Your task to perform on an android device: Play the last video I watched on Youtube Image 0: 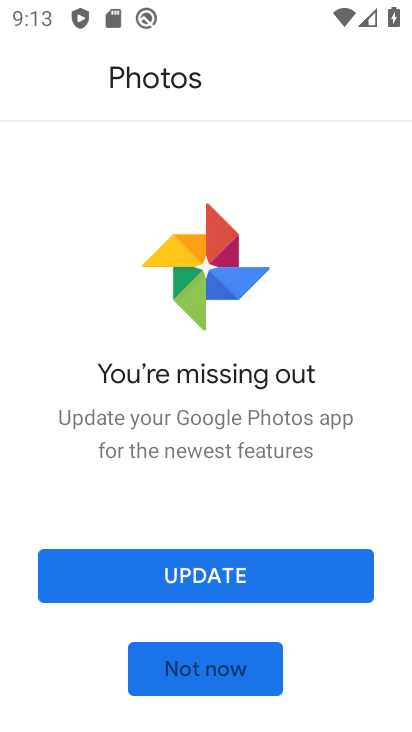
Step 0: press home button
Your task to perform on an android device: Play the last video I watched on Youtube Image 1: 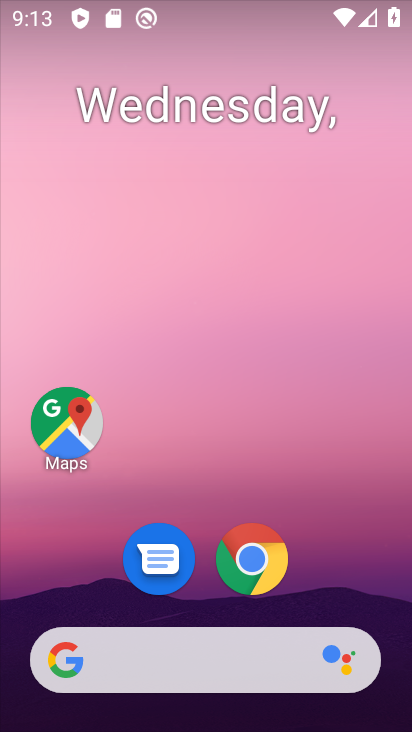
Step 1: drag from (327, 567) to (317, 189)
Your task to perform on an android device: Play the last video I watched on Youtube Image 2: 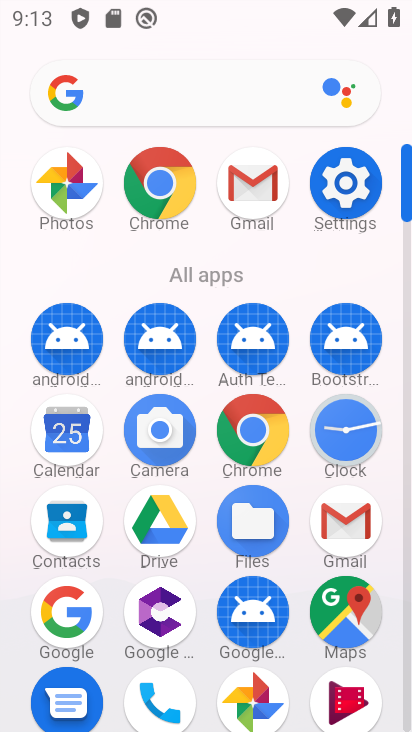
Step 2: drag from (292, 650) to (312, 248)
Your task to perform on an android device: Play the last video I watched on Youtube Image 3: 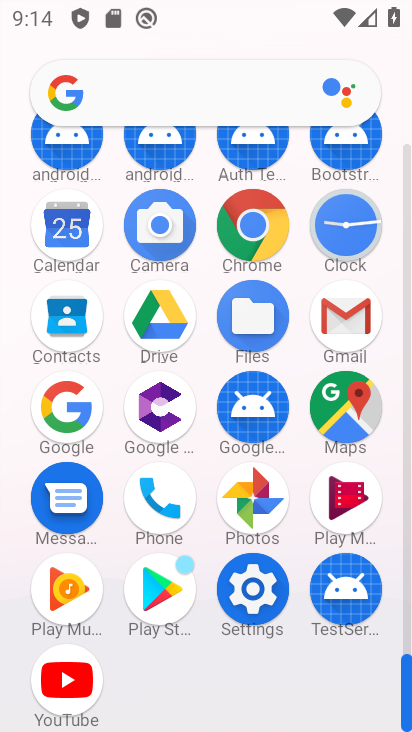
Step 3: click (68, 695)
Your task to perform on an android device: Play the last video I watched on Youtube Image 4: 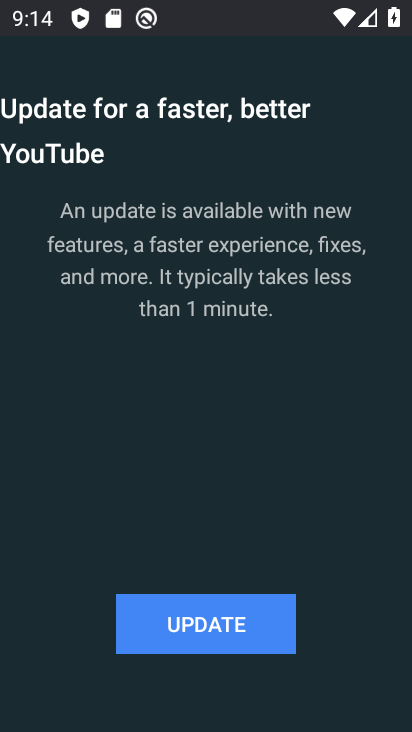
Step 4: click (226, 646)
Your task to perform on an android device: Play the last video I watched on Youtube Image 5: 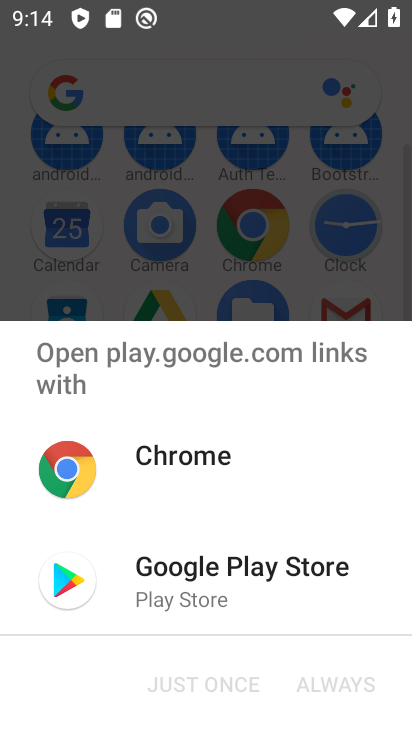
Step 5: click (189, 582)
Your task to perform on an android device: Play the last video I watched on Youtube Image 6: 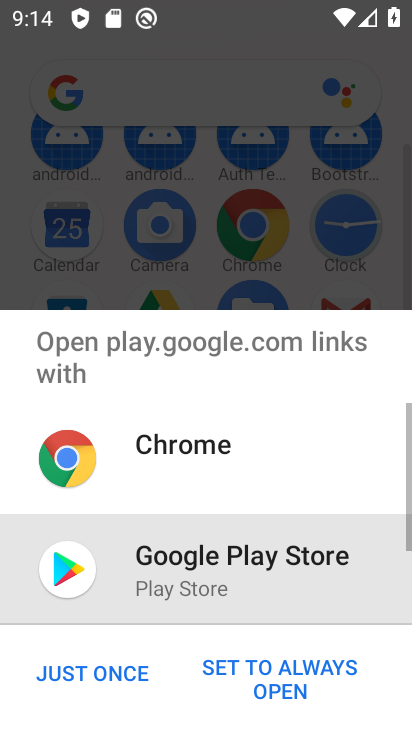
Step 6: click (77, 666)
Your task to perform on an android device: Play the last video I watched on Youtube Image 7: 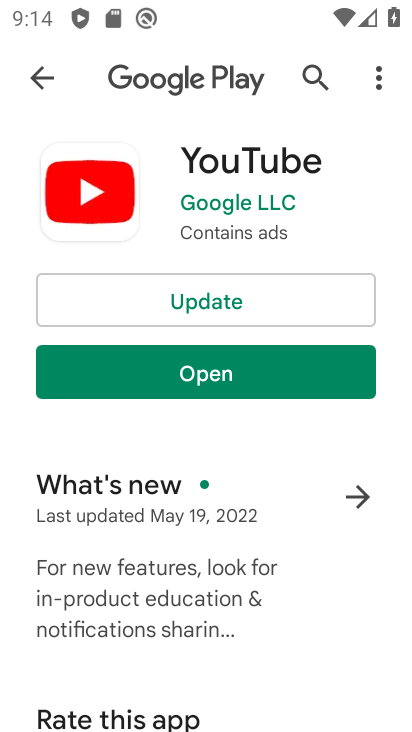
Step 7: click (173, 302)
Your task to perform on an android device: Play the last video I watched on Youtube Image 8: 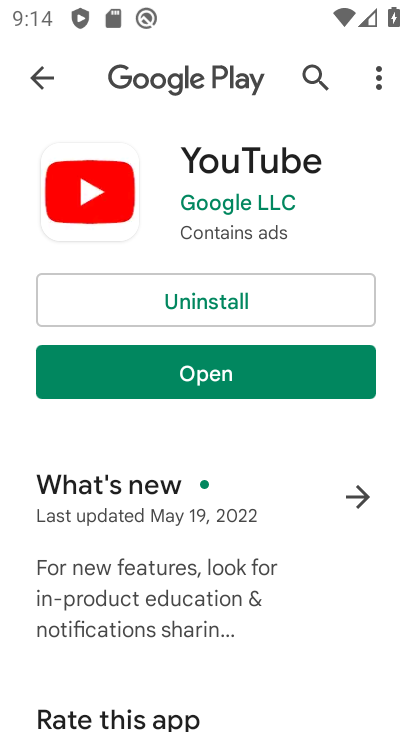
Step 8: click (256, 369)
Your task to perform on an android device: Play the last video I watched on Youtube Image 9: 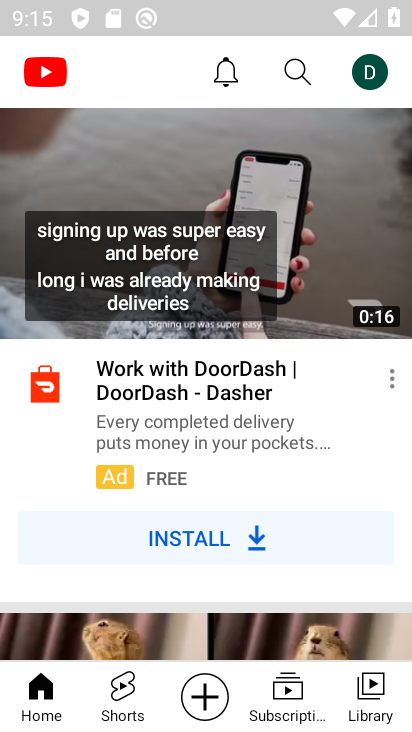
Step 9: click (371, 689)
Your task to perform on an android device: Play the last video I watched on Youtube Image 10: 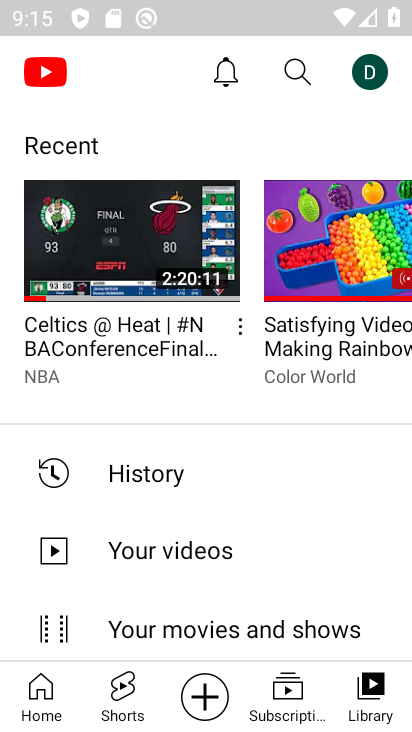
Step 10: click (140, 233)
Your task to perform on an android device: Play the last video I watched on Youtube Image 11: 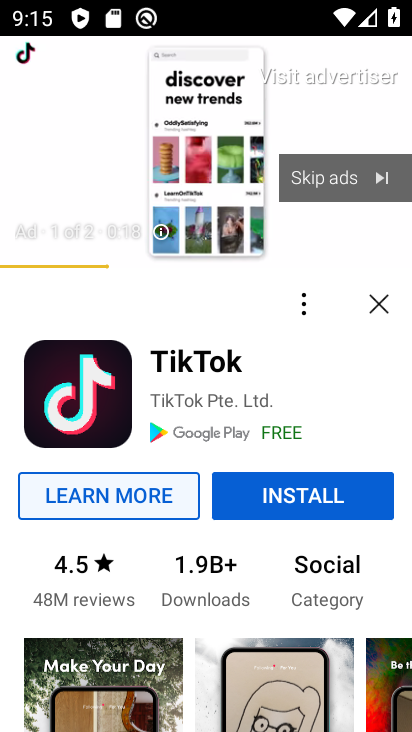
Step 11: click (364, 180)
Your task to perform on an android device: Play the last video I watched on Youtube Image 12: 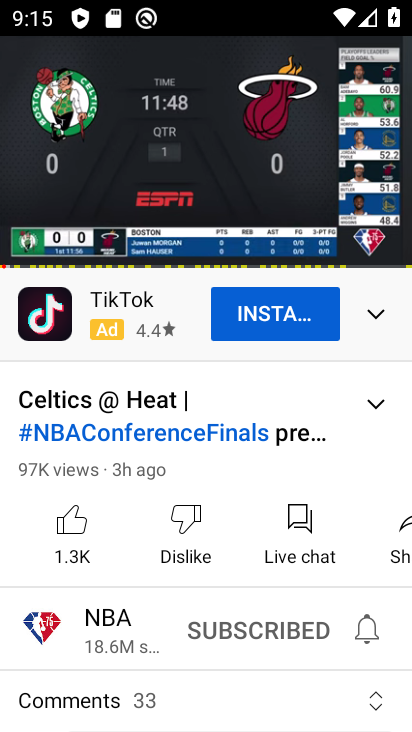
Step 12: task complete